Your task to perform on an android device: Open notification settings Image 0: 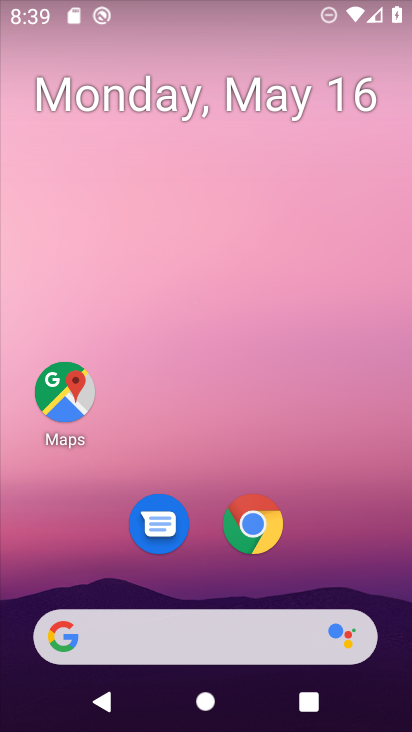
Step 0: drag from (322, 555) to (321, 52)
Your task to perform on an android device: Open notification settings Image 1: 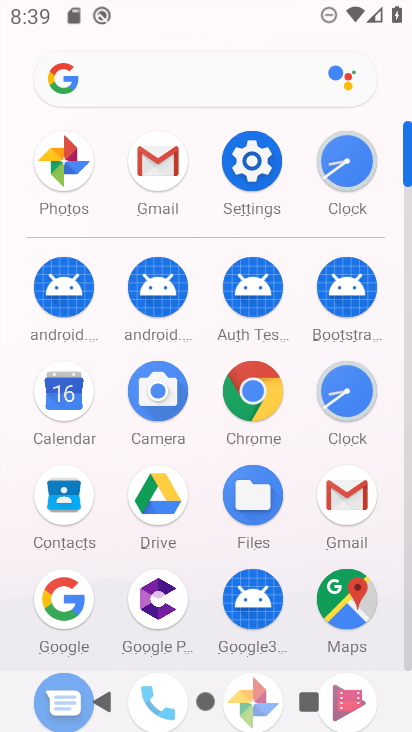
Step 1: click (239, 157)
Your task to perform on an android device: Open notification settings Image 2: 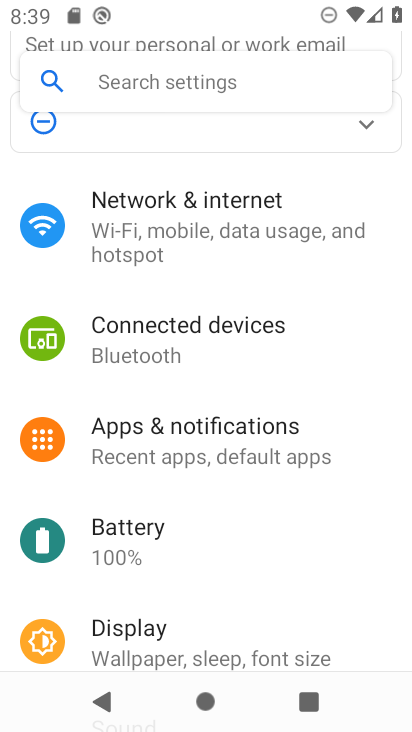
Step 2: click (203, 427)
Your task to perform on an android device: Open notification settings Image 3: 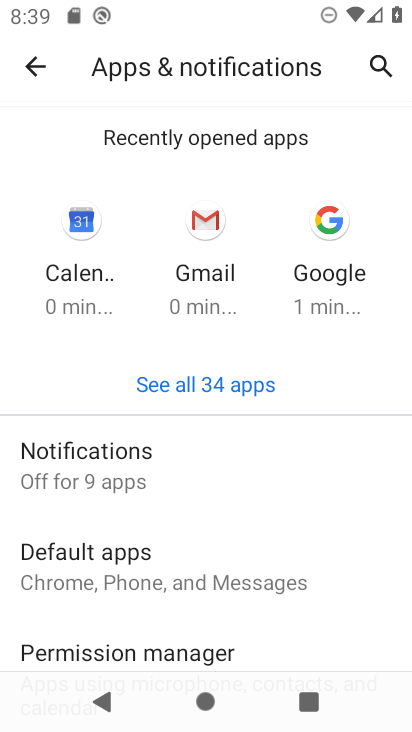
Step 3: click (127, 477)
Your task to perform on an android device: Open notification settings Image 4: 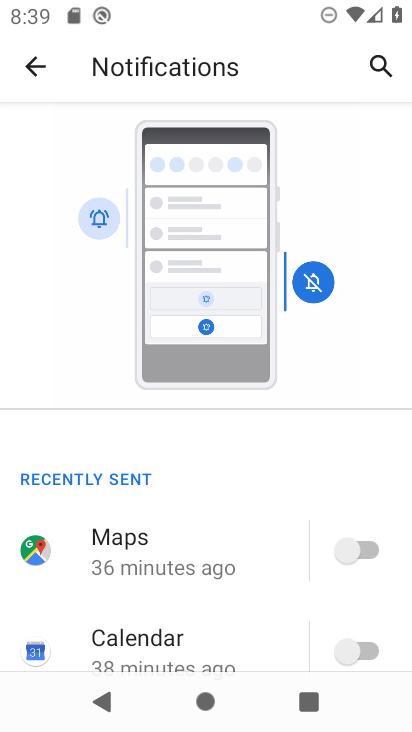
Step 4: task complete